Your task to perform on an android device: Search for a runner rug on Crate & Barrel Image 0: 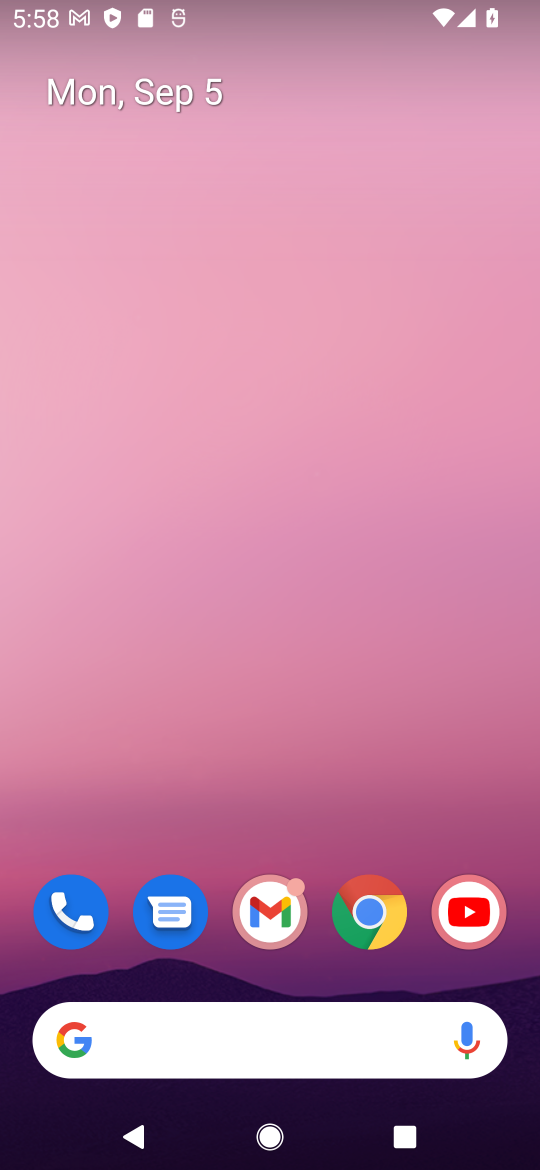
Step 0: click (370, 931)
Your task to perform on an android device: Search for a runner rug on Crate & Barrel Image 1: 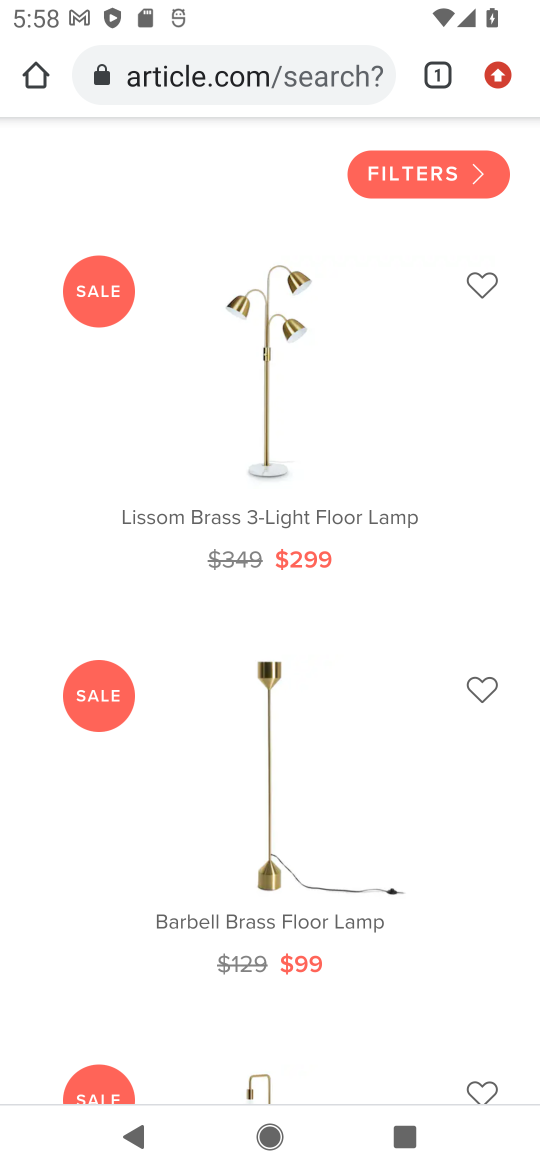
Step 1: click (241, 80)
Your task to perform on an android device: Search for a runner rug on Crate & Barrel Image 2: 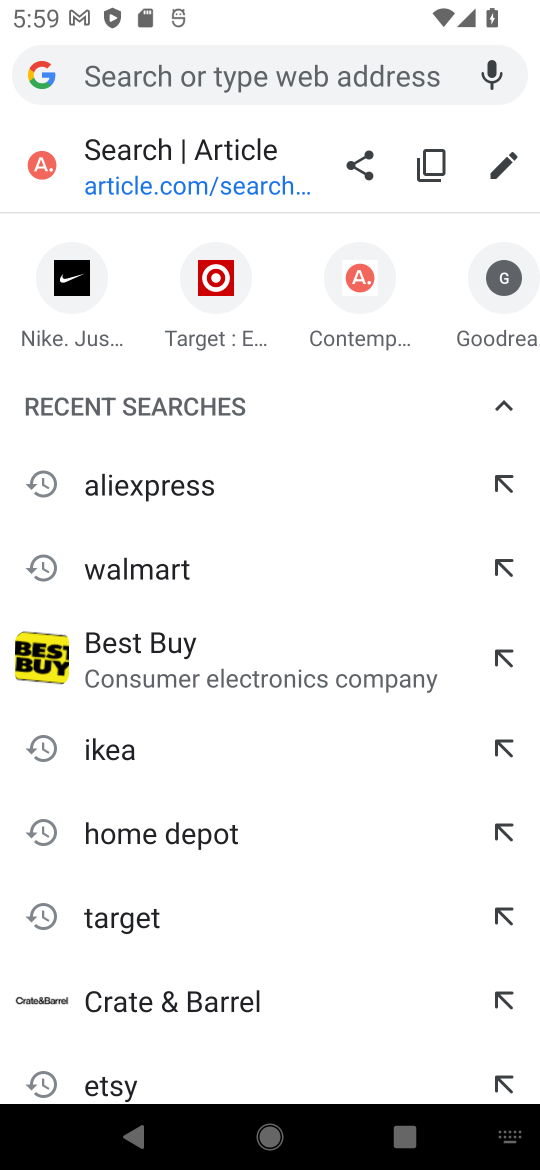
Step 2: type "crate & barrel"
Your task to perform on an android device: Search for a runner rug on Crate & Barrel Image 3: 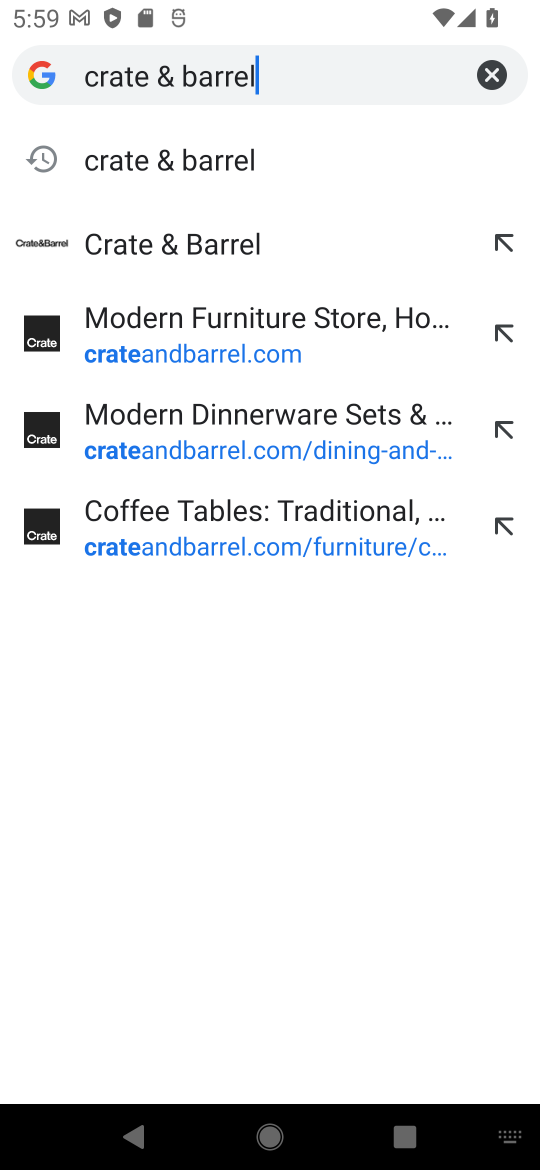
Step 3: press enter
Your task to perform on an android device: Search for a runner rug on Crate & Barrel Image 4: 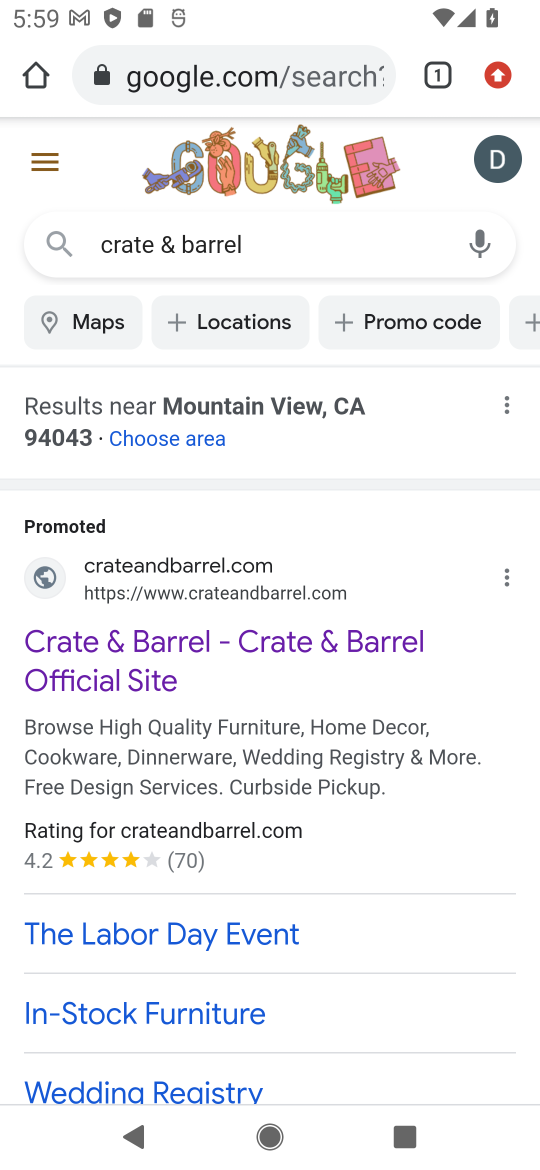
Step 4: click (140, 665)
Your task to perform on an android device: Search for a runner rug on Crate & Barrel Image 5: 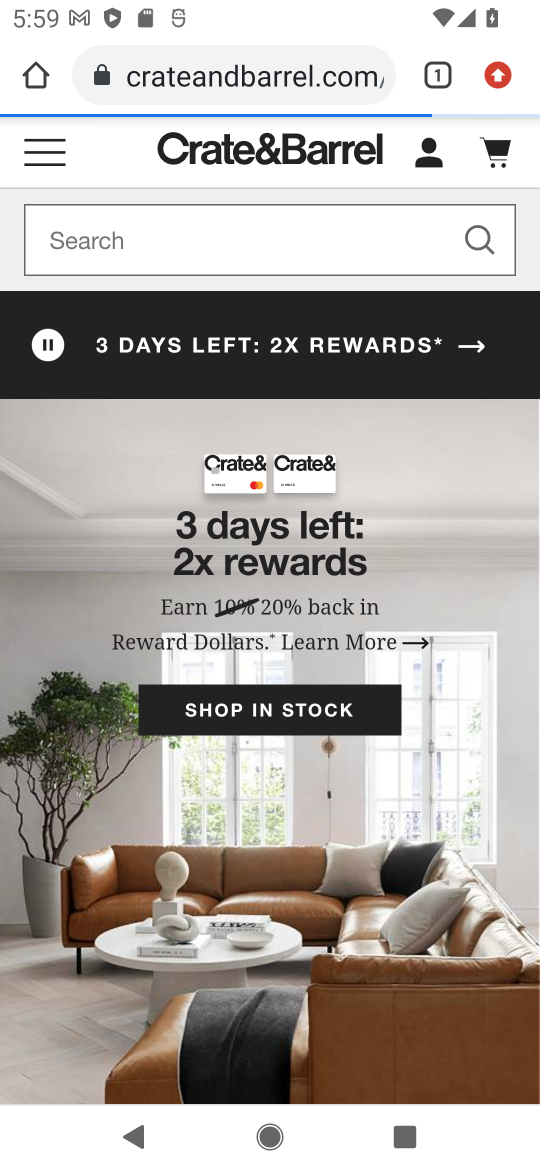
Step 5: click (235, 250)
Your task to perform on an android device: Search for a runner rug on Crate & Barrel Image 6: 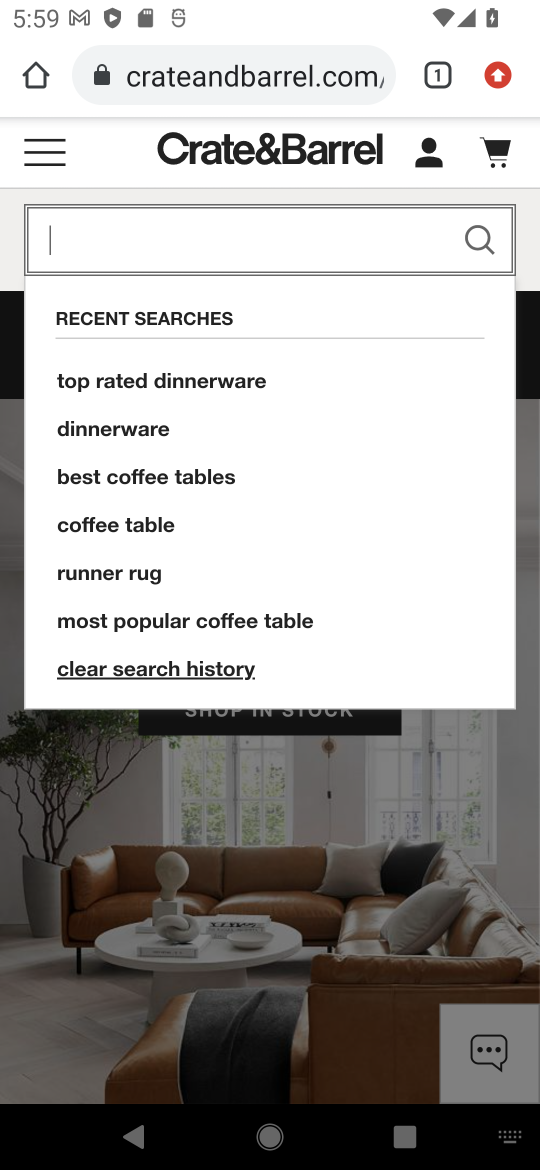
Step 6: type "runner rug"
Your task to perform on an android device: Search for a runner rug on Crate & Barrel Image 7: 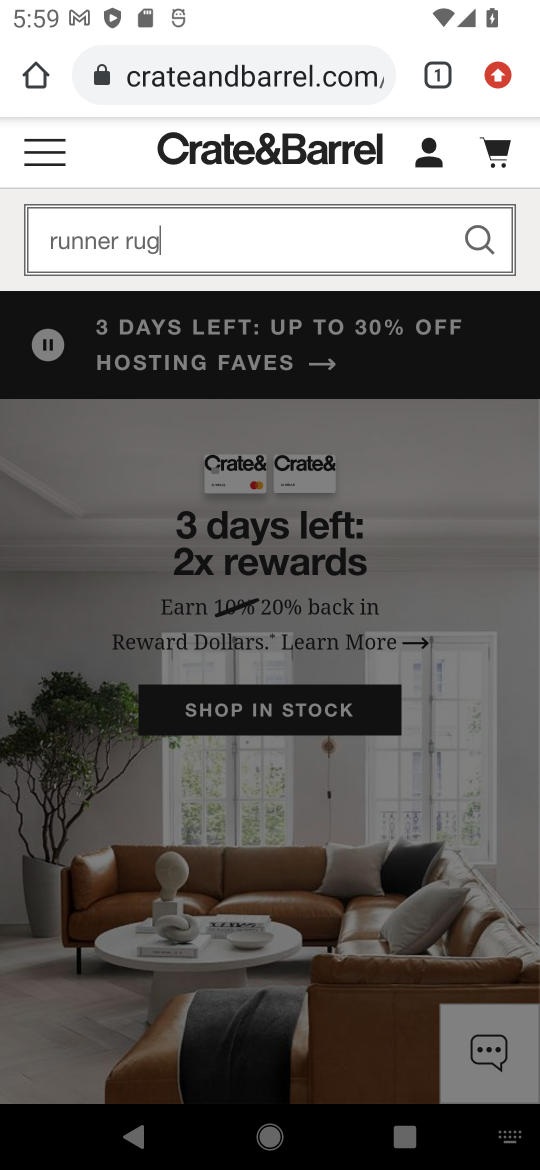
Step 7: press enter
Your task to perform on an android device: Search for a runner rug on Crate & Barrel Image 8: 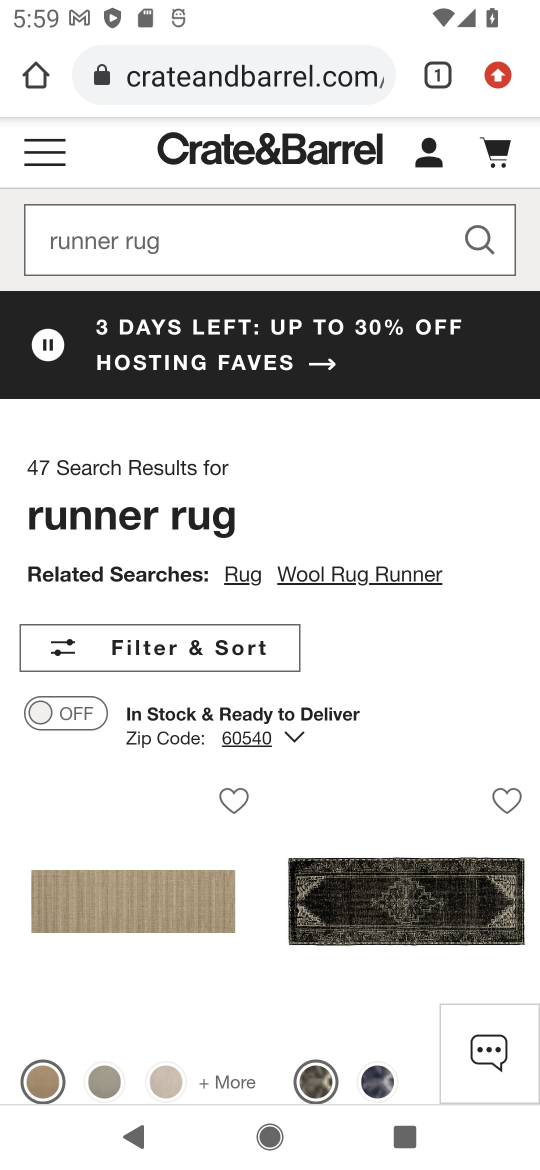
Step 8: task complete